Your task to perform on an android device: Do I have any events today? Image 0: 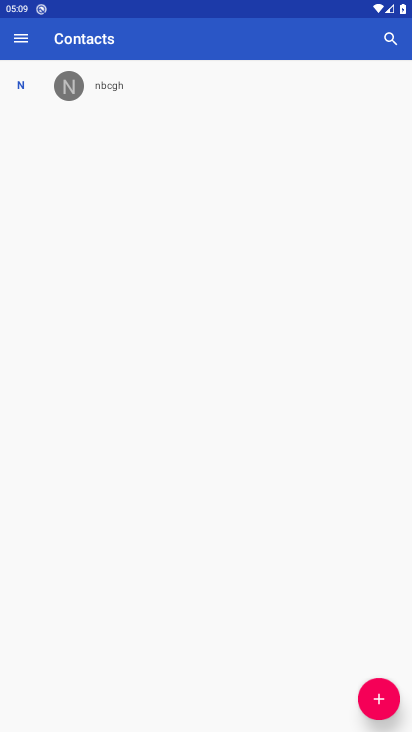
Step 0: press home button
Your task to perform on an android device: Do I have any events today? Image 1: 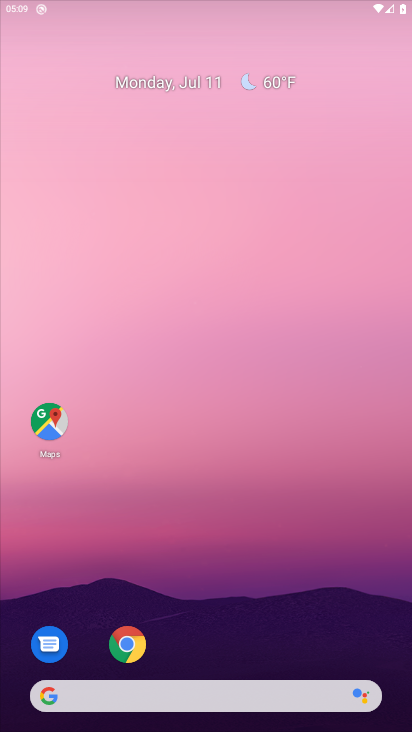
Step 1: drag from (185, 668) to (196, 289)
Your task to perform on an android device: Do I have any events today? Image 2: 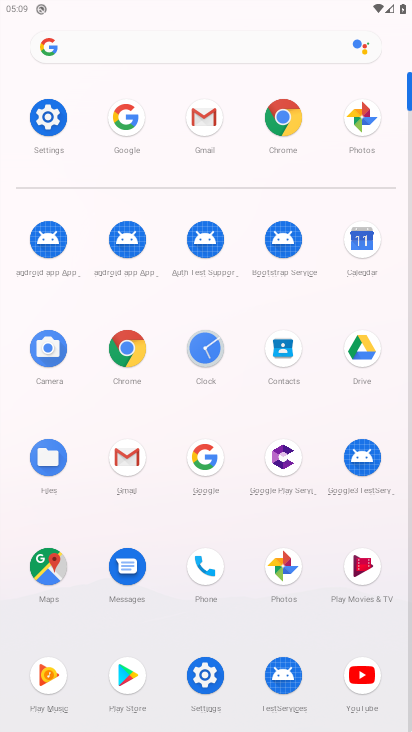
Step 2: click (356, 248)
Your task to perform on an android device: Do I have any events today? Image 3: 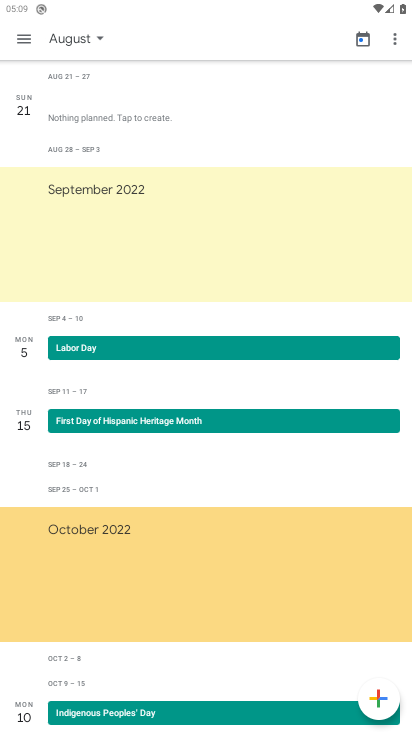
Step 3: click (74, 38)
Your task to perform on an android device: Do I have any events today? Image 4: 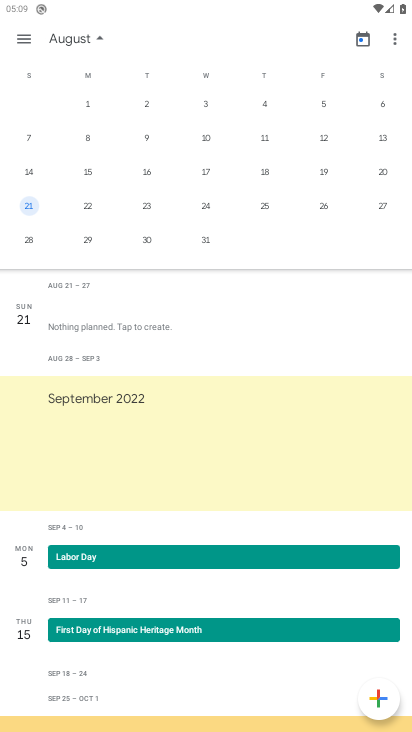
Step 4: drag from (87, 160) to (411, 171)
Your task to perform on an android device: Do I have any events today? Image 5: 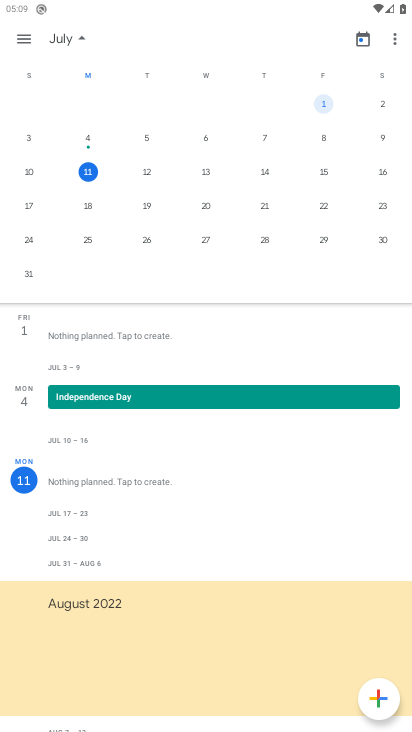
Step 5: click (88, 169)
Your task to perform on an android device: Do I have any events today? Image 6: 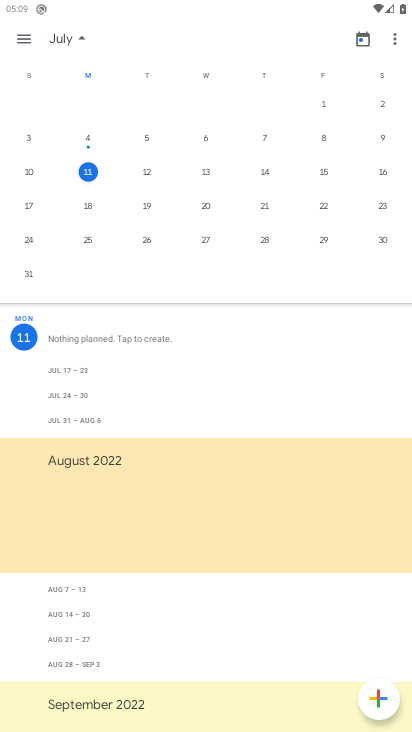
Step 6: task complete